Your task to perform on an android device: Open Yahoo.com Image 0: 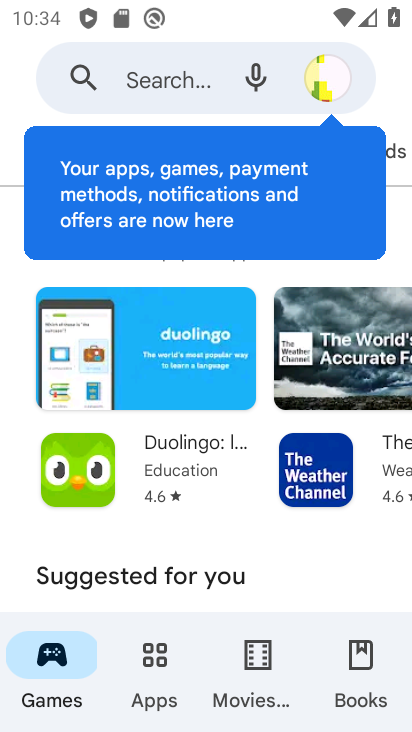
Step 0: press back button
Your task to perform on an android device: Open Yahoo.com Image 1: 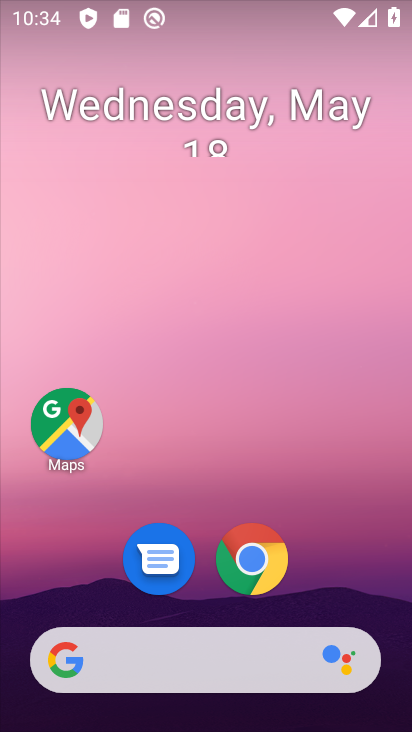
Step 1: click (249, 565)
Your task to perform on an android device: Open Yahoo.com Image 2: 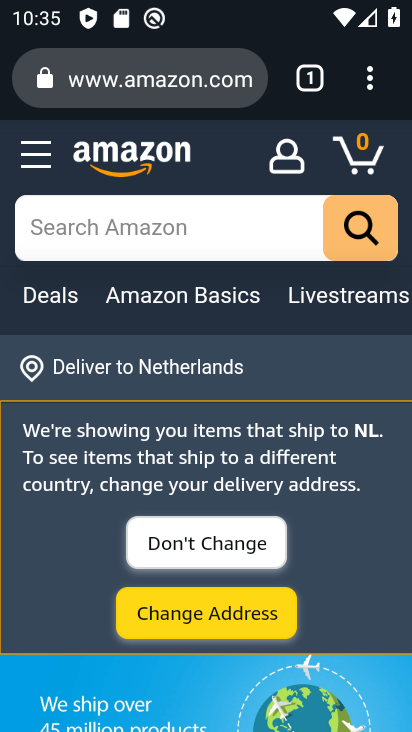
Step 2: click (312, 74)
Your task to perform on an android device: Open Yahoo.com Image 3: 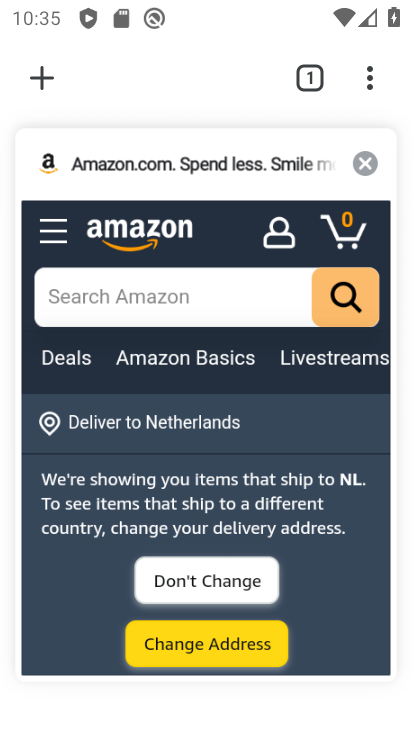
Step 3: click (41, 75)
Your task to perform on an android device: Open Yahoo.com Image 4: 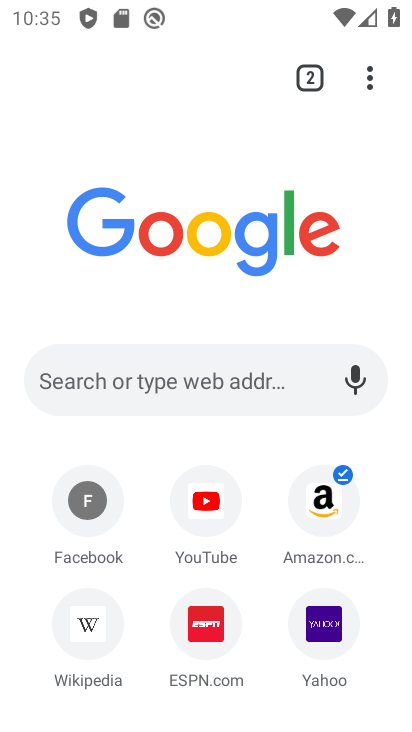
Step 4: click (320, 630)
Your task to perform on an android device: Open Yahoo.com Image 5: 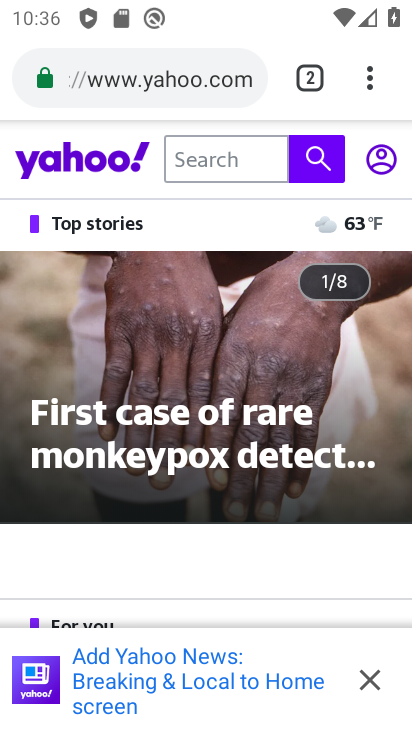
Step 5: task complete